Your task to perform on an android device: turn off location history Image 0: 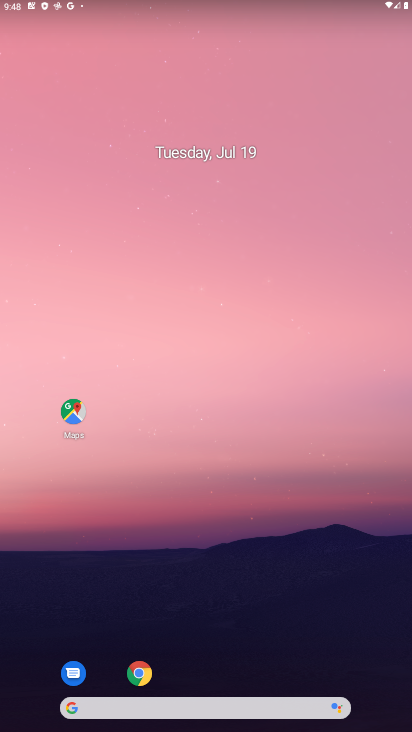
Step 0: drag from (266, 653) to (214, 187)
Your task to perform on an android device: turn off location history Image 1: 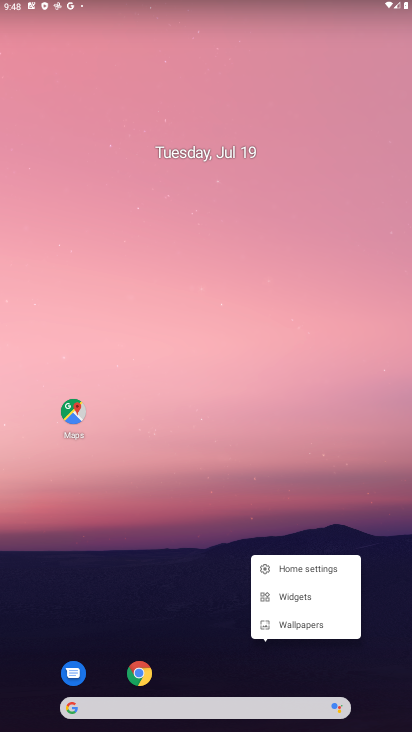
Step 1: click (208, 412)
Your task to perform on an android device: turn off location history Image 2: 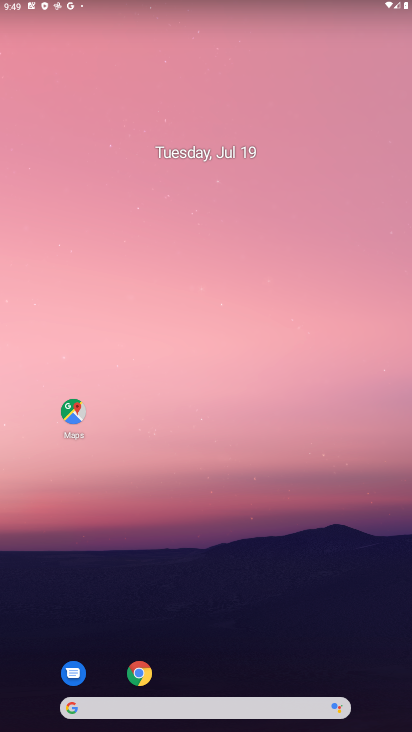
Step 2: drag from (231, 661) to (227, 132)
Your task to perform on an android device: turn off location history Image 3: 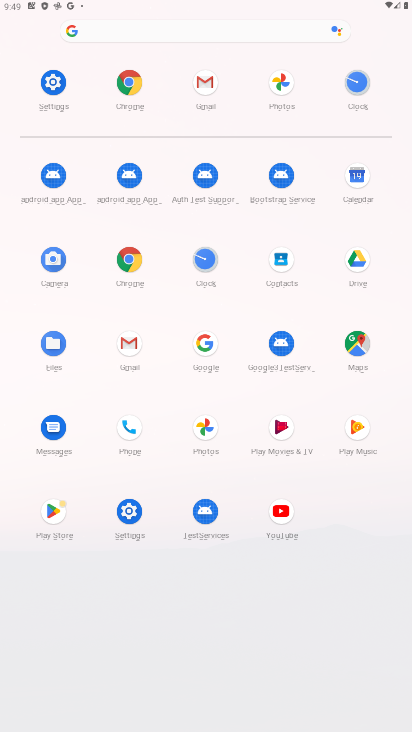
Step 3: click (126, 514)
Your task to perform on an android device: turn off location history Image 4: 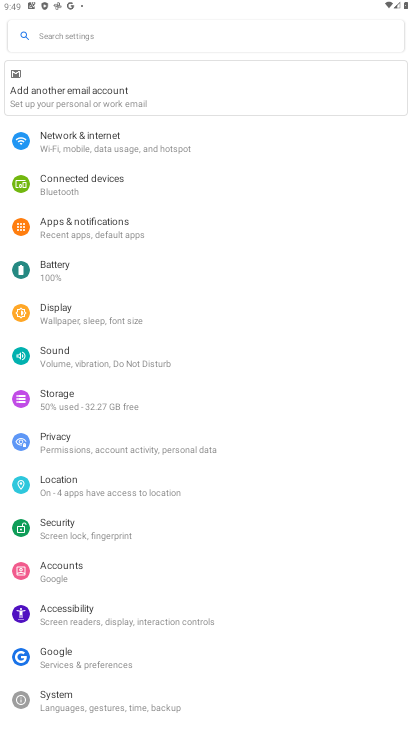
Step 4: click (98, 481)
Your task to perform on an android device: turn off location history Image 5: 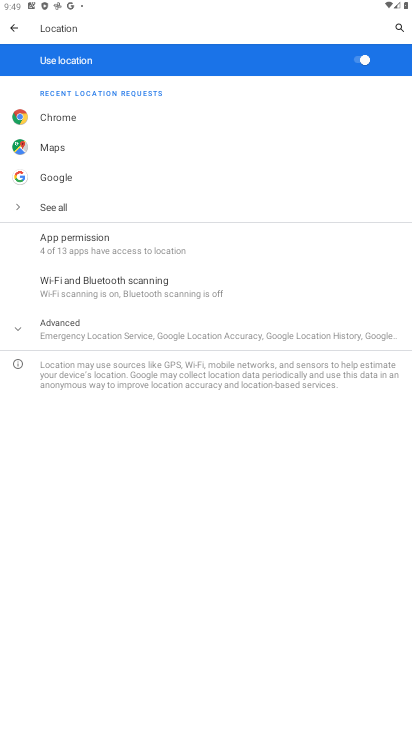
Step 5: task complete